Your task to perform on an android device: Open CNN.com Image 0: 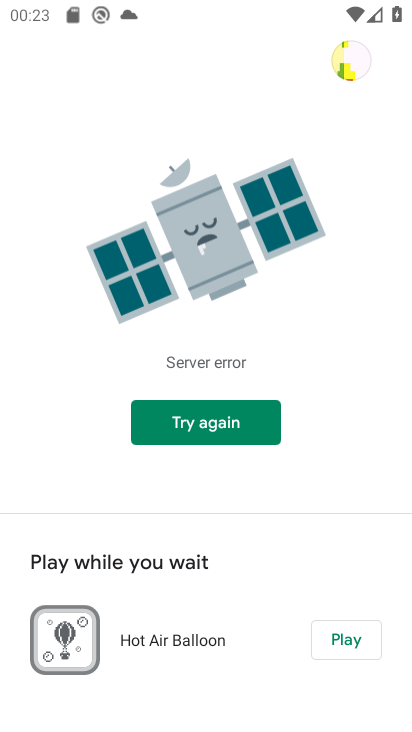
Step 0: press home button
Your task to perform on an android device: Open CNN.com Image 1: 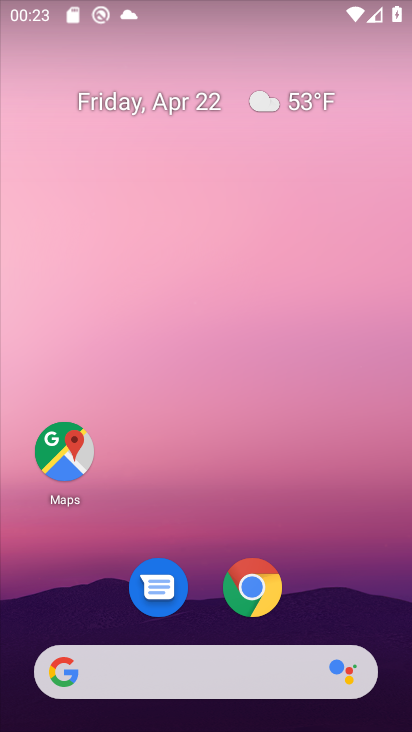
Step 1: click (243, 595)
Your task to perform on an android device: Open CNN.com Image 2: 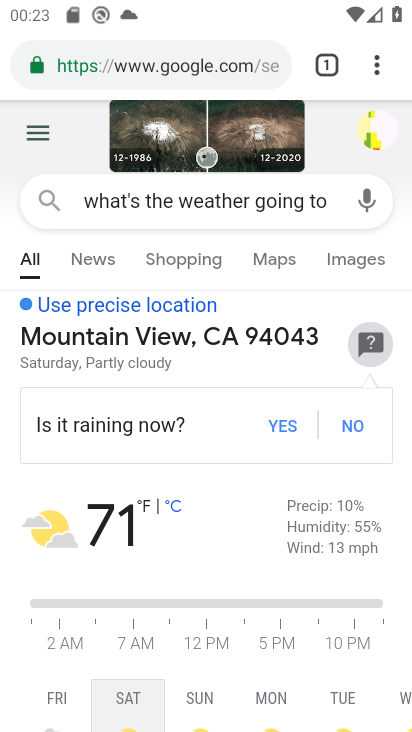
Step 2: click (151, 71)
Your task to perform on an android device: Open CNN.com Image 3: 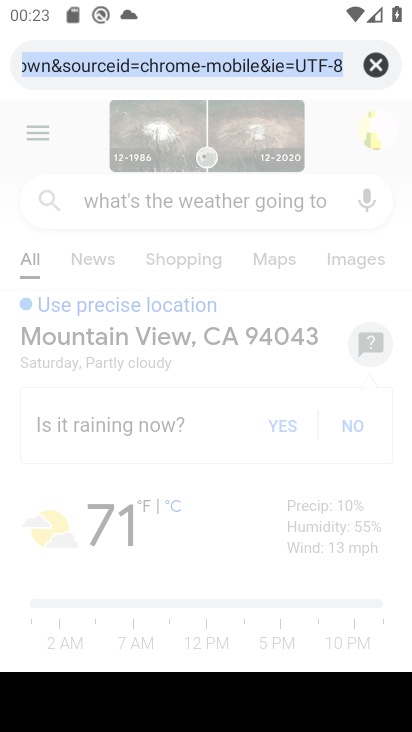
Step 3: type "CNN.com"
Your task to perform on an android device: Open CNN.com Image 4: 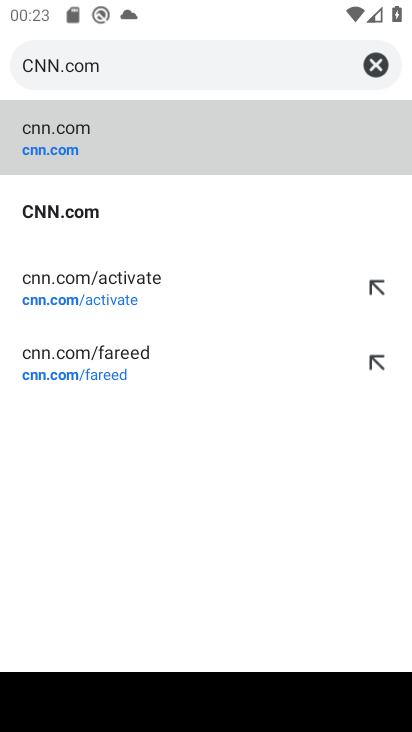
Step 4: click (44, 150)
Your task to perform on an android device: Open CNN.com Image 5: 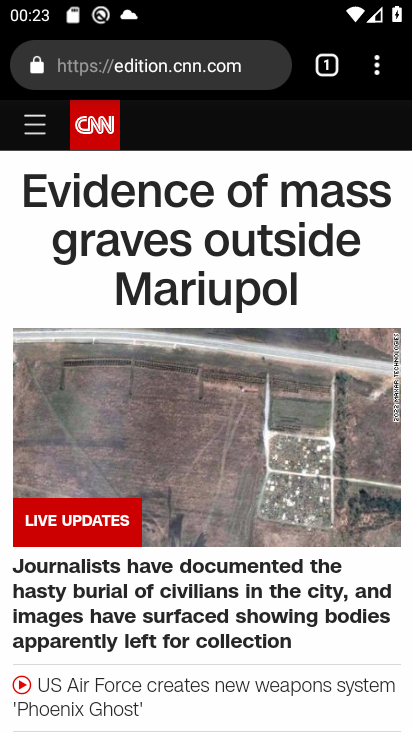
Step 5: task complete